Your task to perform on an android device: search for starred emails in the gmail app Image 0: 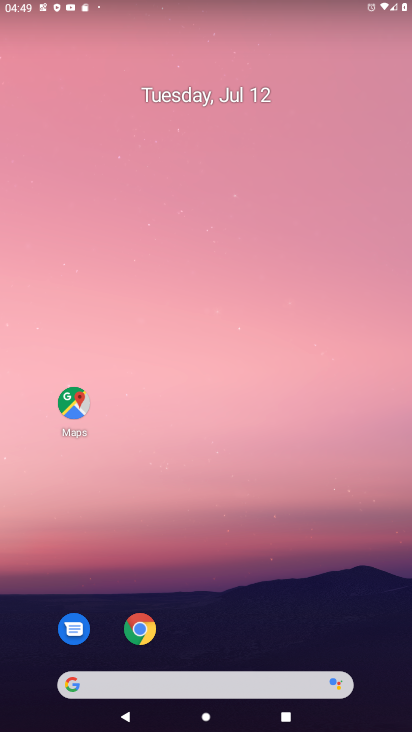
Step 0: press home button
Your task to perform on an android device: search for starred emails in the gmail app Image 1: 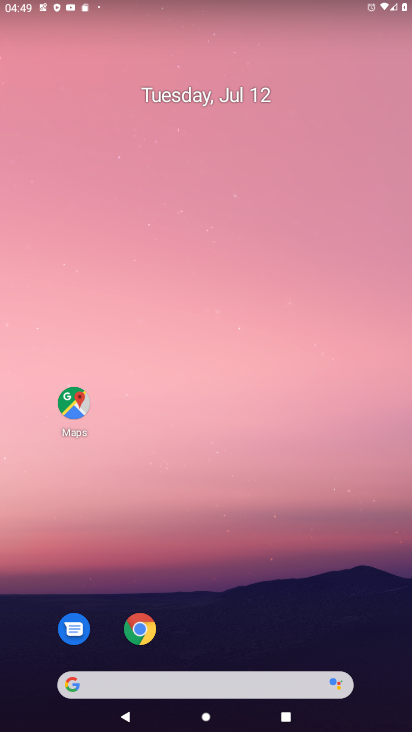
Step 1: press home button
Your task to perform on an android device: search for starred emails in the gmail app Image 2: 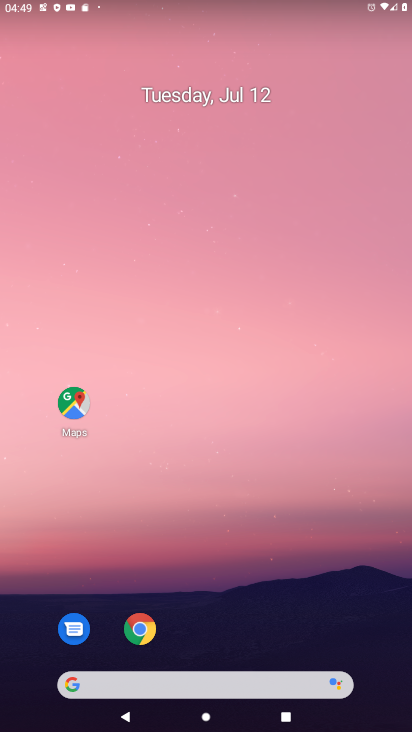
Step 2: press home button
Your task to perform on an android device: search for starred emails in the gmail app Image 3: 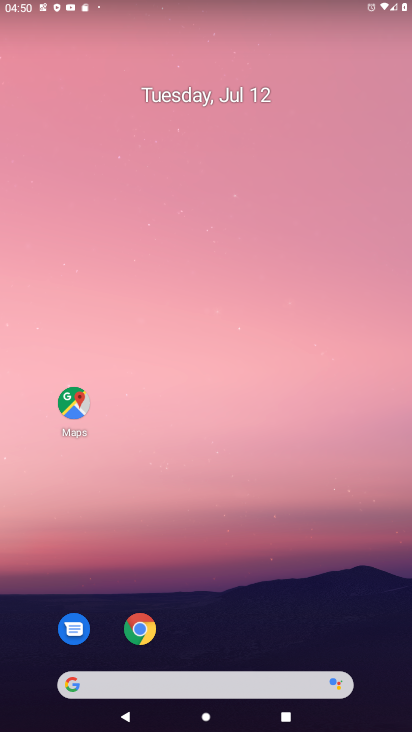
Step 3: press home button
Your task to perform on an android device: search for starred emails in the gmail app Image 4: 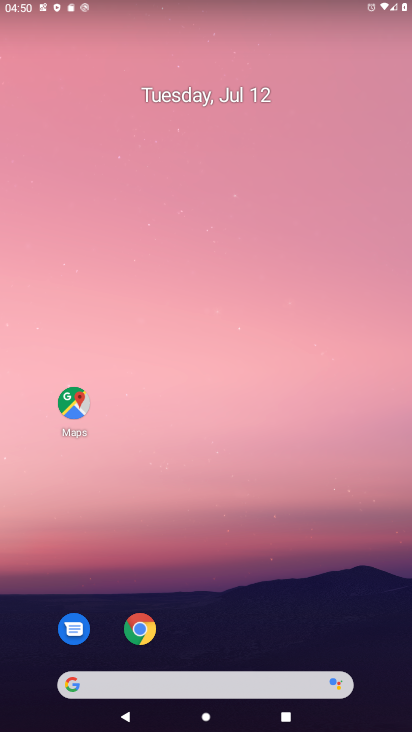
Step 4: drag from (247, 641) to (237, 80)
Your task to perform on an android device: search for starred emails in the gmail app Image 5: 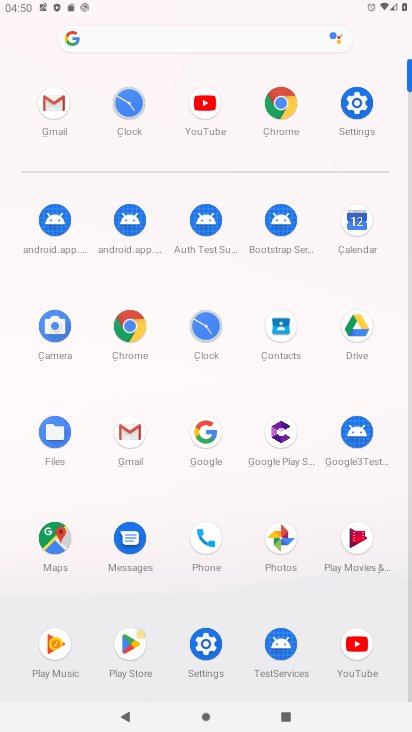
Step 5: click (49, 103)
Your task to perform on an android device: search for starred emails in the gmail app Image 6: 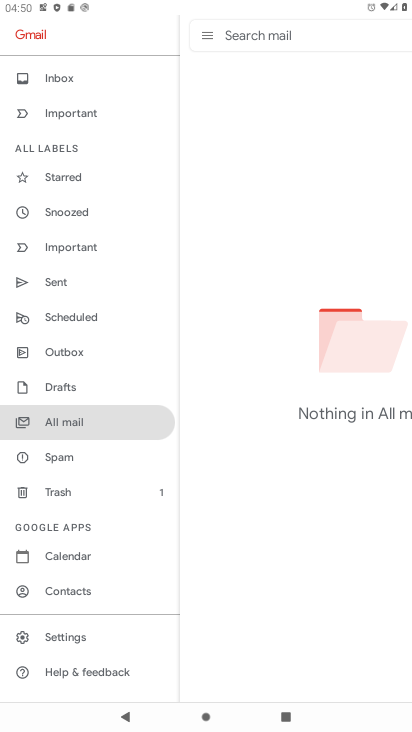
Step 6: click (64, 182)
Your task to perform on an android device: search for starred emails in the gmail app Image 7: 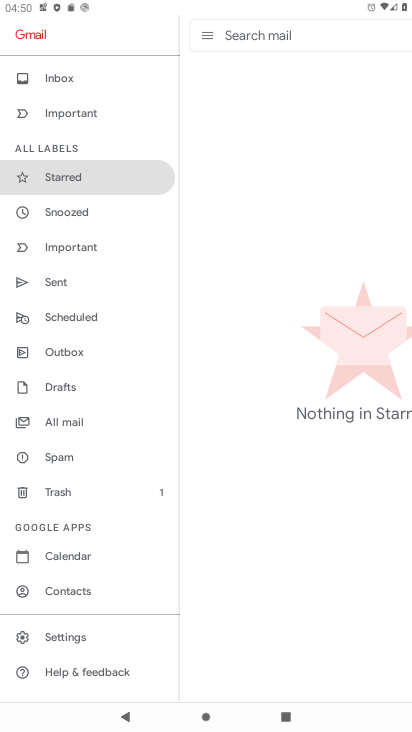
Step 7: task complete